Your task to perform on an android device: set the timer Image 0: 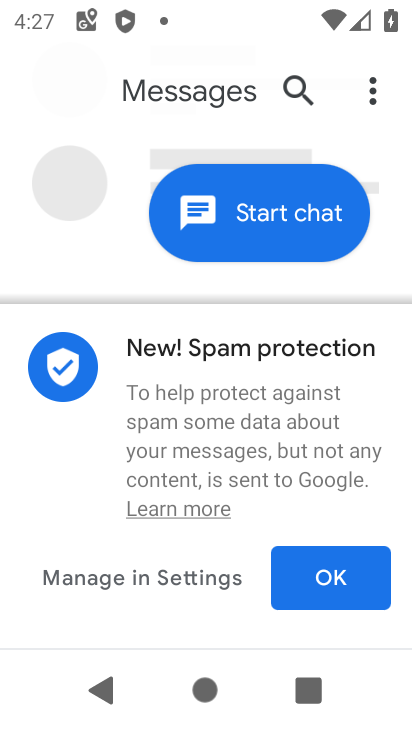
Step 0: press home button
Your task to perform on an android device: set the timer Image 1: 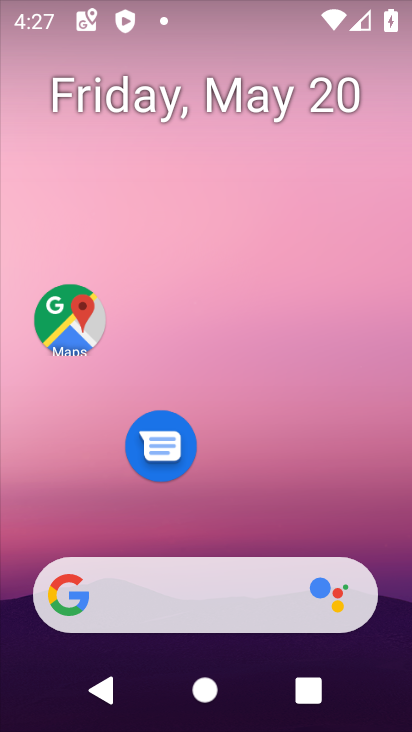
Step 1: drag from (191, 513) to (234, 15)
Your task to perform on an android device: set the timer Image 2: 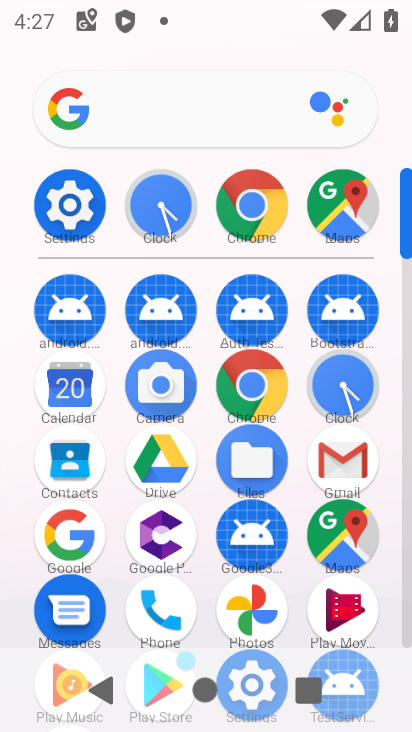
Step 2: click (341, 397)
Your task to perform on an android device: set the timer Image 3: 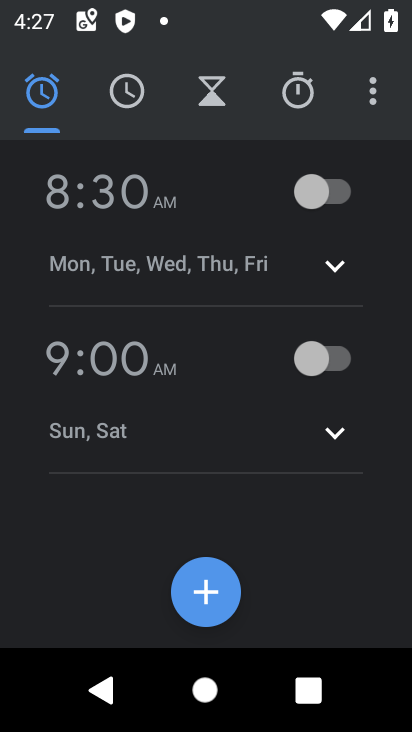
Step 3: click (224, 100)
Your task to perform on an android device: set the timer Image 4: 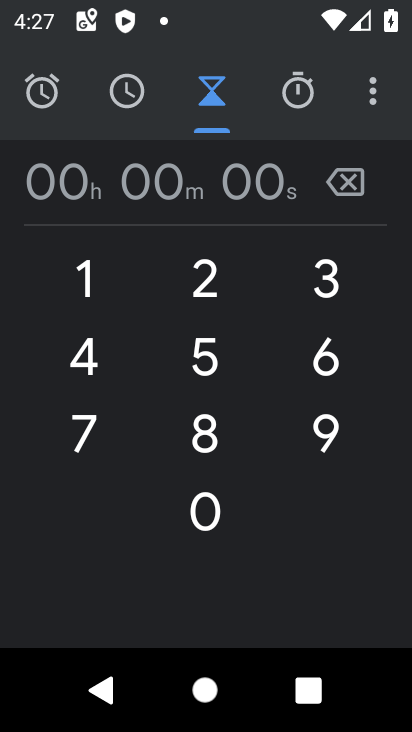
Step 4: click (202, 435)
Your task to perform on an android device: set the timer Image 5: 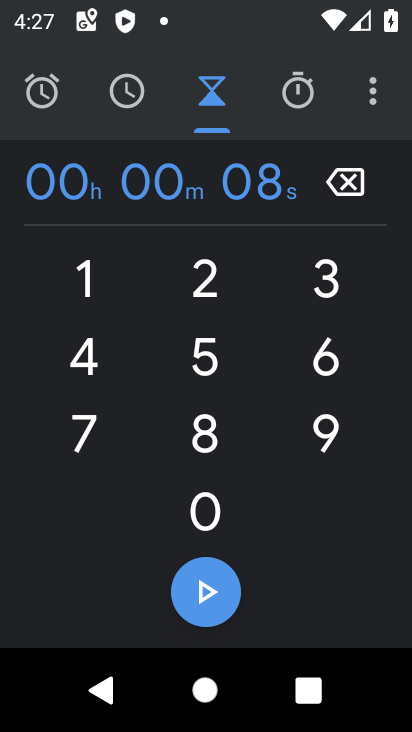
Step 5: click (169, 358)
Your task to perform on an android device: set the timer Image 6: 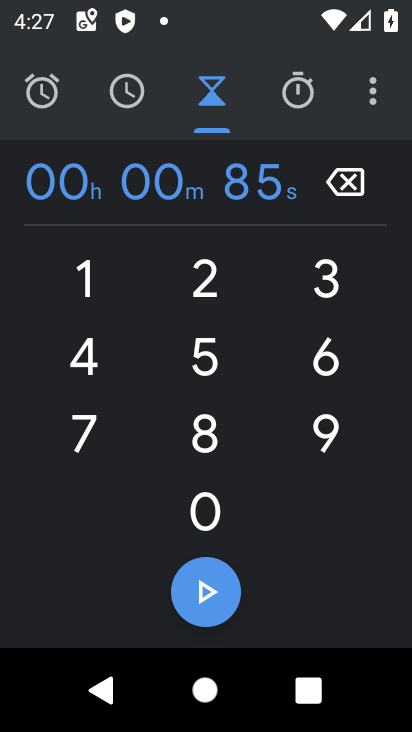
Step 6: click (343, 421)
Your task to perform on an android device: set the timer Image 7: 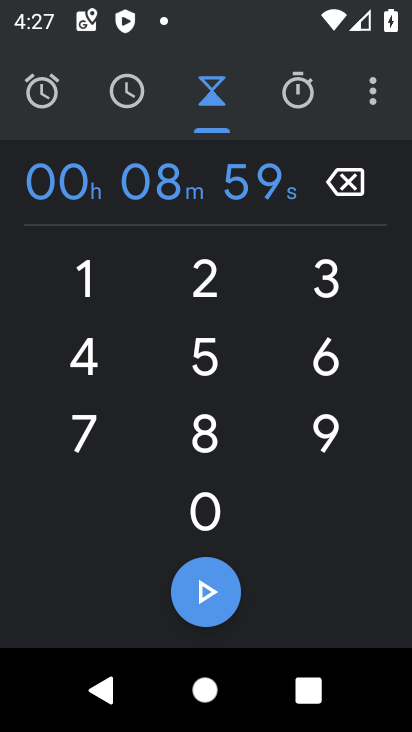
Step 7: click (200, 573)
Your task to perform on an android device: set the timer Image 8: 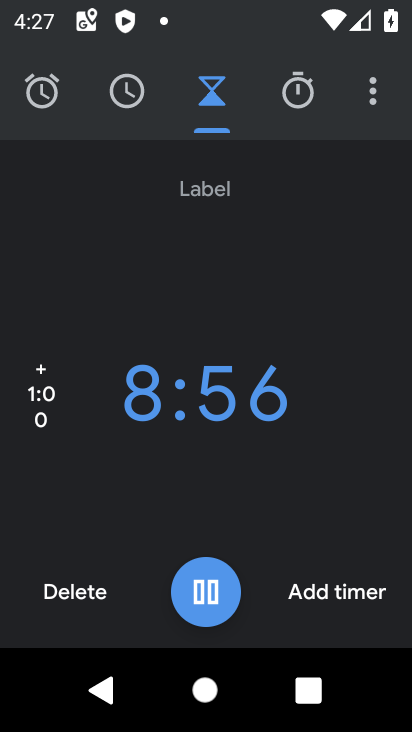
Step 8: task complete